Your task to perform on an android device: toggle priority inbox in the gmail app Image 0: 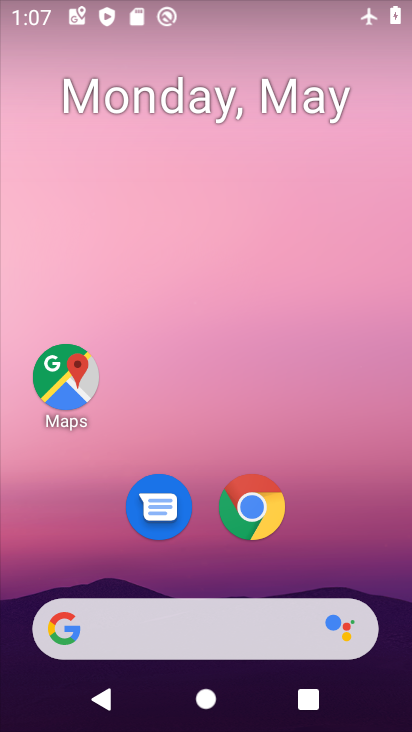
Step 0: drag from (250, 722) to (250, 24)
Your task to perform on an android device: toggle priority inbox in the gmail app Image 1: 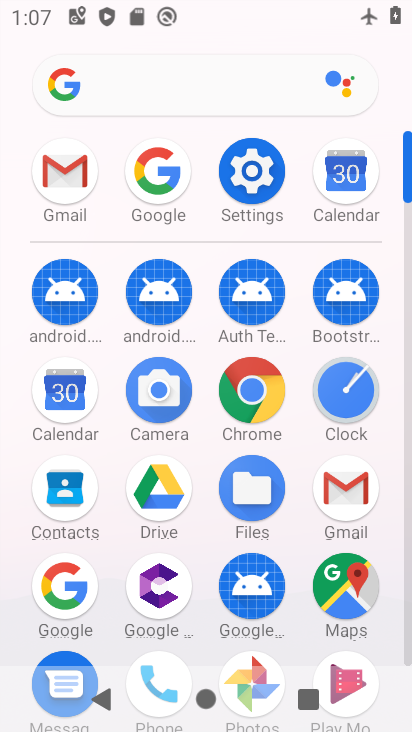
Step 1: click (335, 483)
Your task to perform on an android device: toggle priority inbox in the gmail app Image 2: 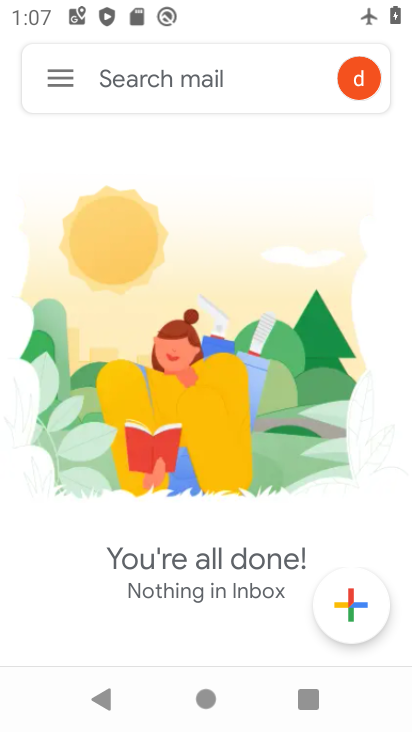
Step 2: click (56, 86)
Your task to perform on an android device: toggle priority inbox in the gmail app Image 3: 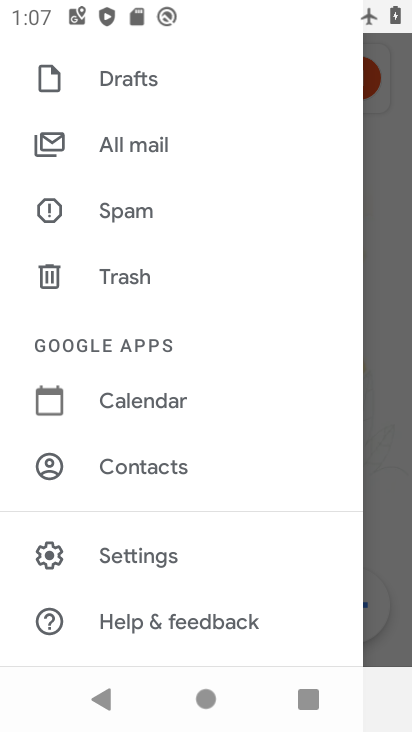
Step 3: click (124, 559)
Your task to perform on an android device: toggle priority inbox in the gmail app Image 4: 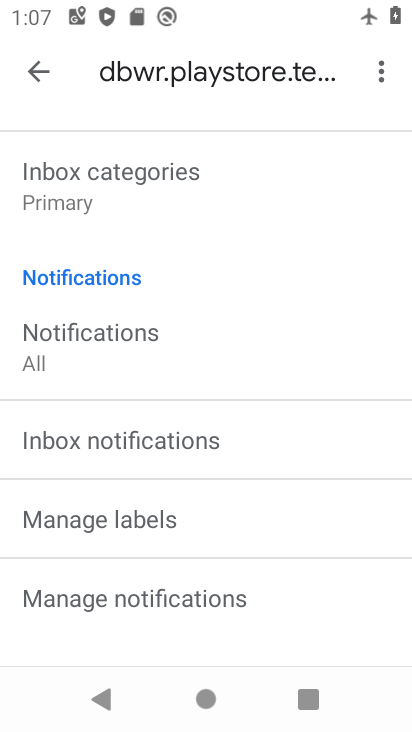
Step 4: drag from (203, 187) to (190, 507)
Your task to perform on an android device: toggle priority inbox in the gmail app Image 5: 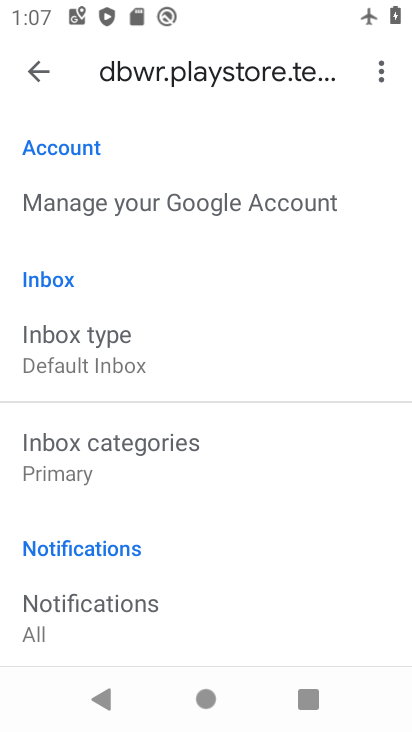
Step 5: click (63, 351)
Your task to perform on an android device: toggle priority inbox in the gmail app Image 6: 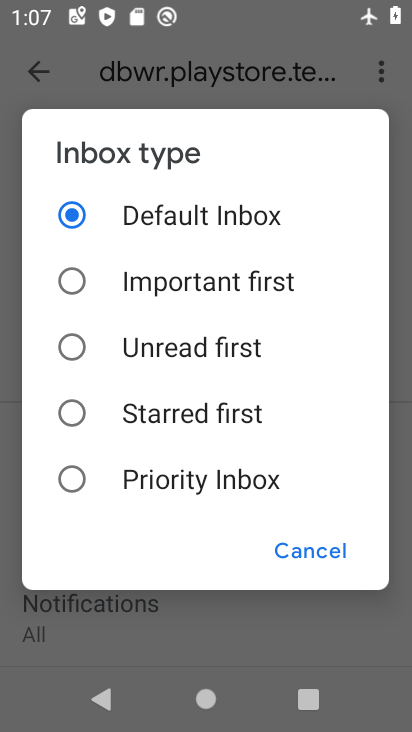
Step 6: click (68, 480)
Your task to perform on an android device: toggle priority inbox in the gmail app Image 7: 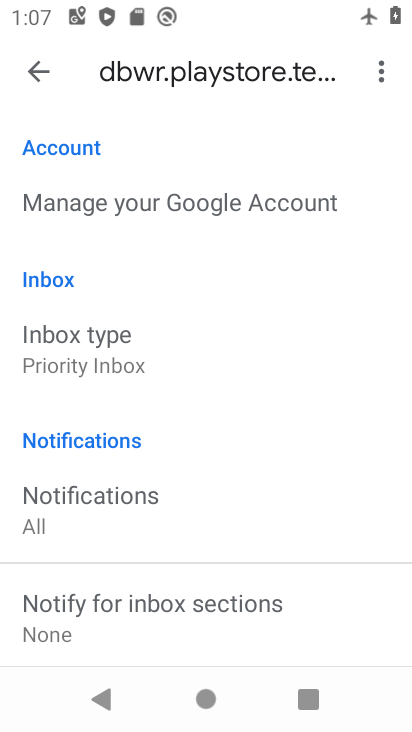
Step 7: task complete